Your task to perform on an android device: How big is a giraffe? Image 0: 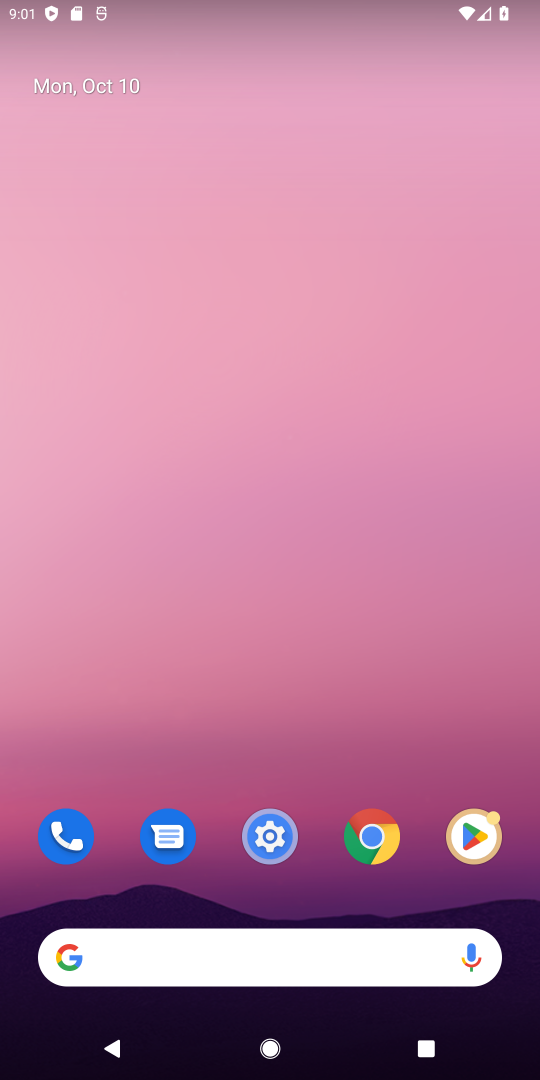
Step 0: drag from (280, 380) to (280, 230)
Your task to perform on an android device: How big is a giraffe? Image 1: 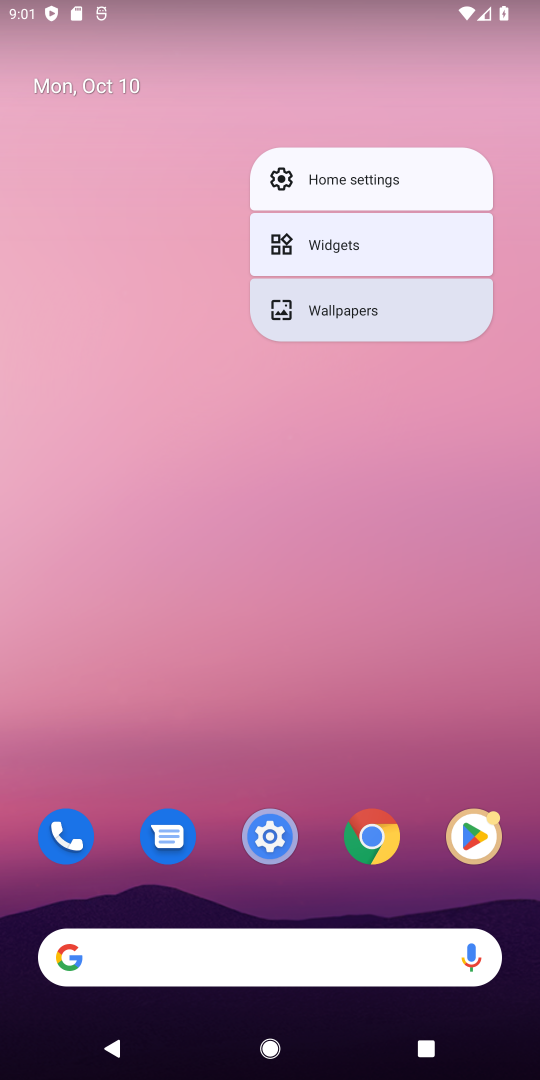
Step 1: click (310, 870)
Your task to perform on an android device: How big is a giraffe? Image 2: 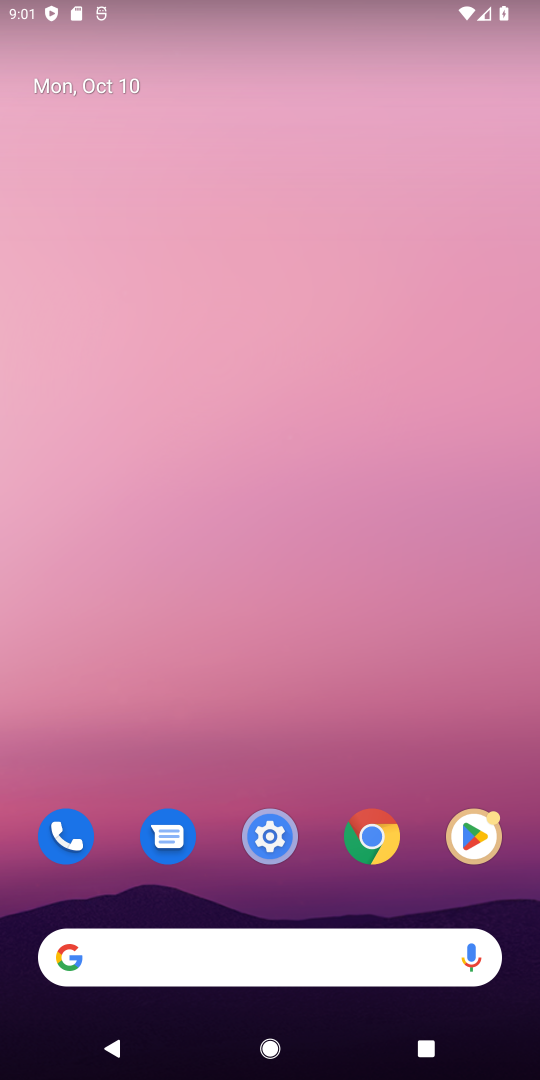
Step 2: click (310, 870)
Your task to perform on an android device: How big is a giraffe? Image 3: 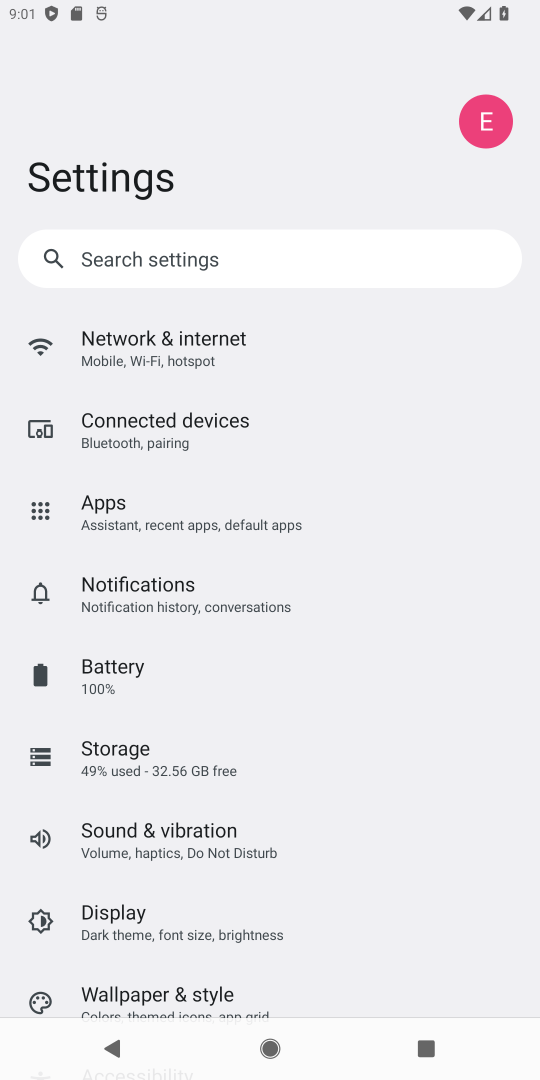
Step 3: press home button
Your task to perform on an android device: How big is a giraffe? Image 4: 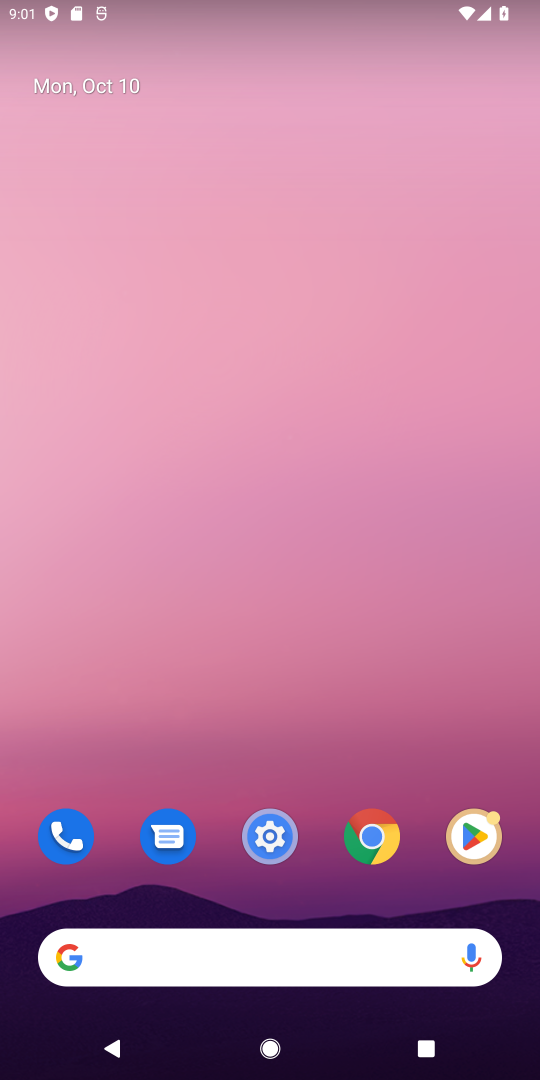
Step 4: drag from (270, 813) to (311, 19)
Your task to perform on an android device: How big is a giraffe? Image 5: 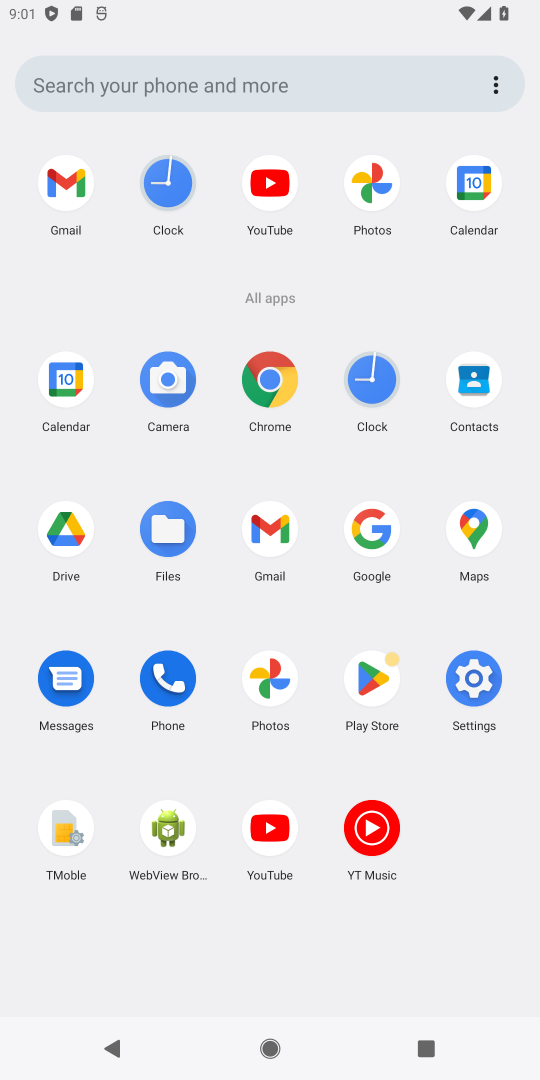
Step 5: click (363, 509)
Your task to perform on an android device: How big is a giraffe? Image 6: 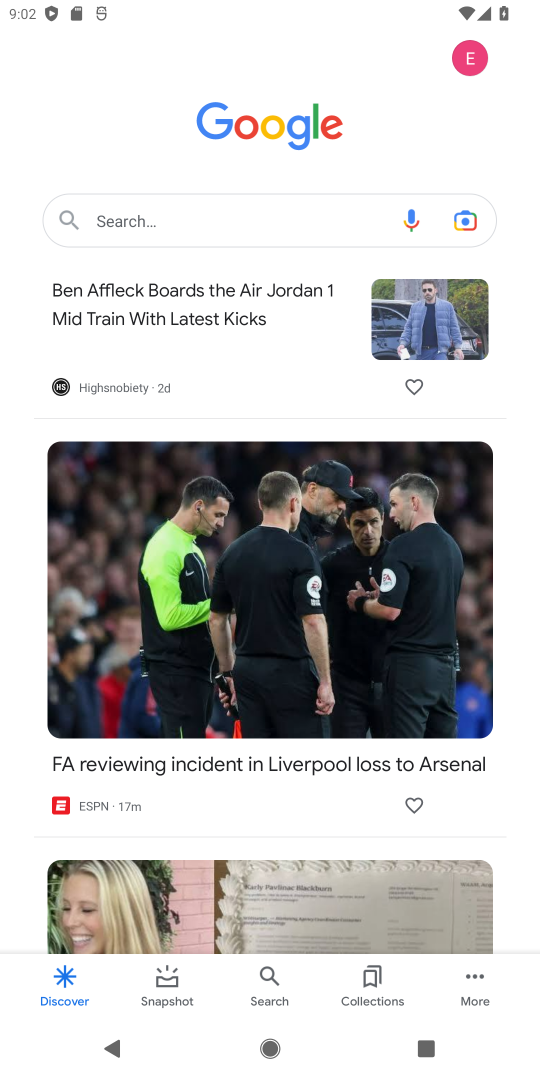
Step 6: click (195, 212)
Your task to perform on an android device: How big is a giraffe? Image 7: 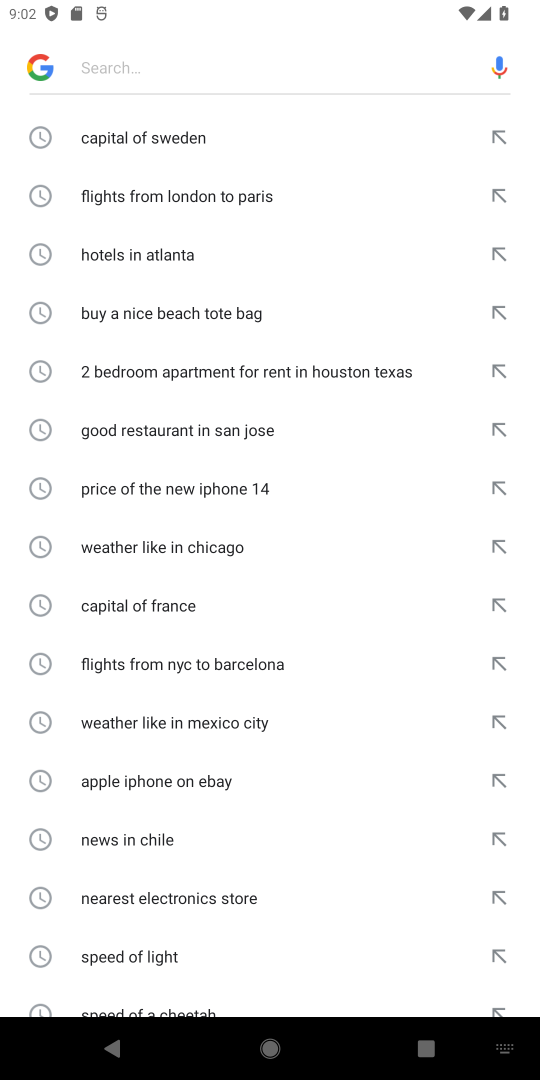
Step 7: type "How big is a giraffe?"
Your task to perform on an android device: How big is a giraffe? Image 8: 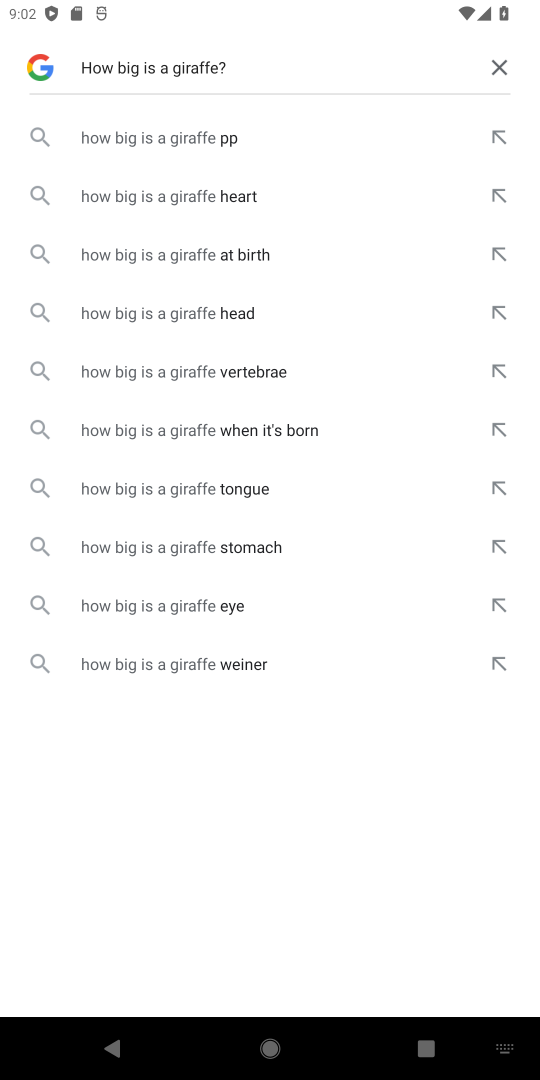
Step 8: click (202, 122)
Your task to perform on an android device: How big is a giraffe? Image 9: 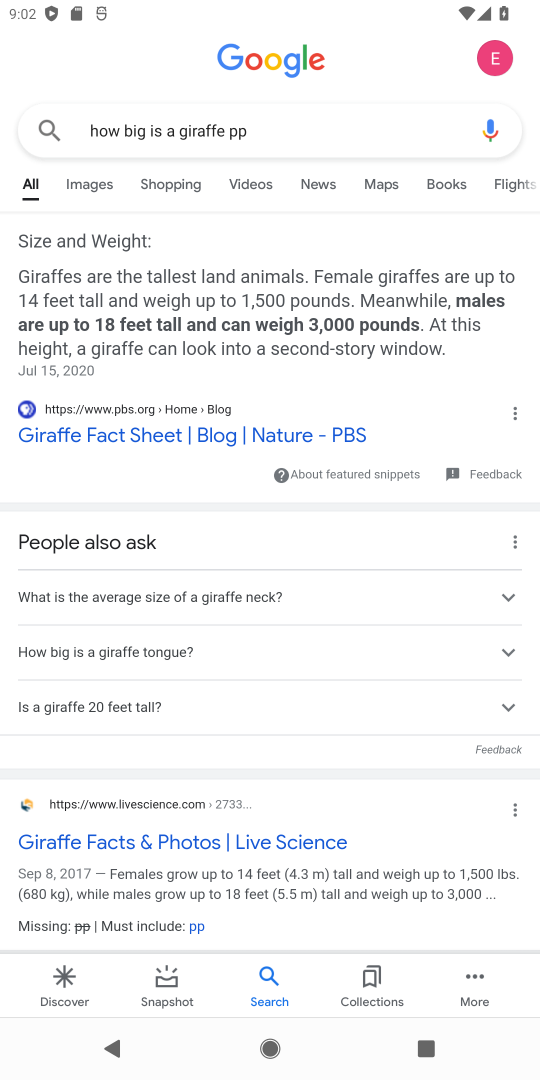
Step 9: drag from (18, 0) to (204, 185)
Your task to perform on an android device: How big is a giraffe? Image 10: 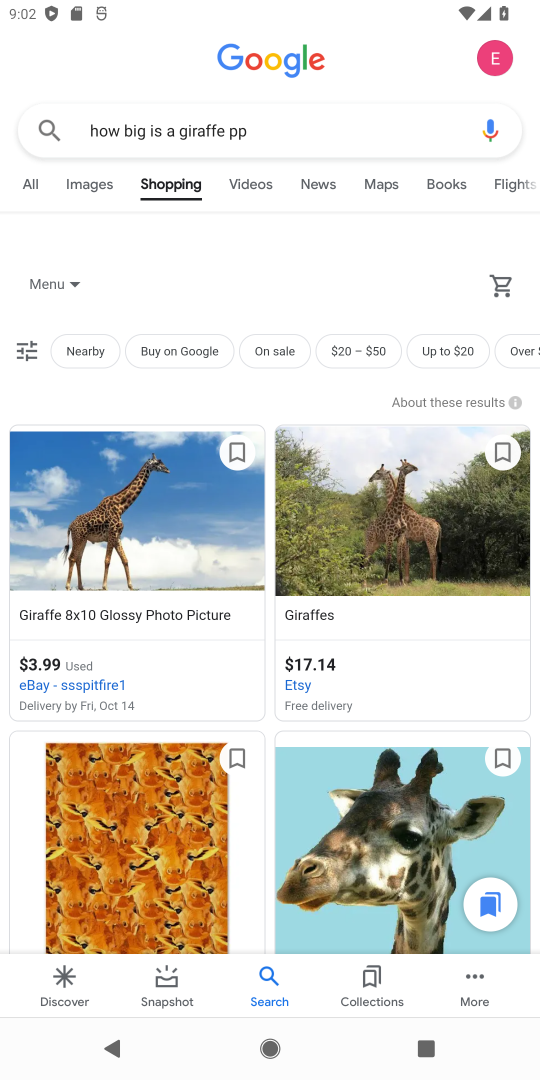
Step 10: click (41, 179)
Your task to perform on an android device: How big is a giraffe? Image 11: 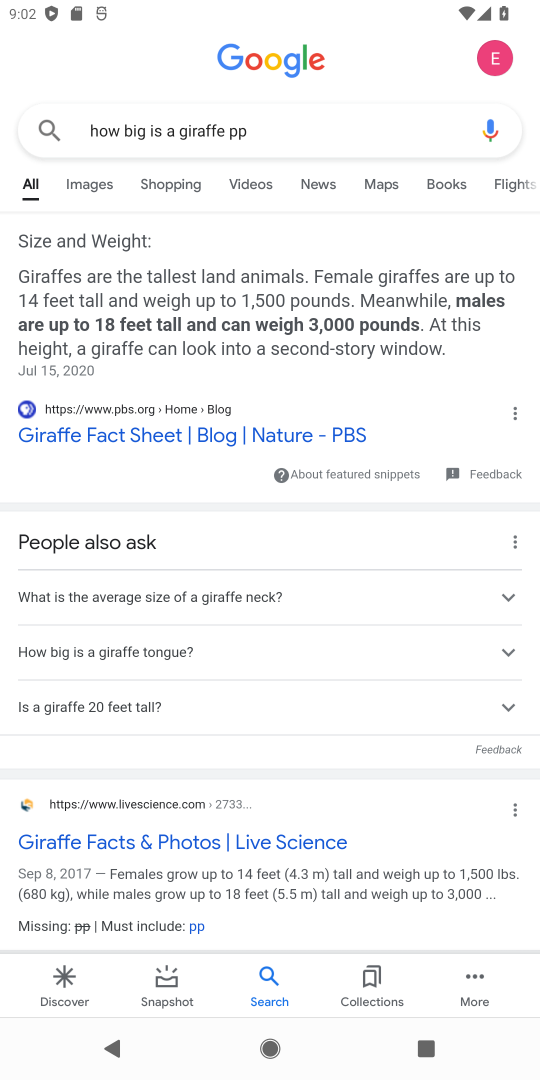
Step 11: task complete